Your task to perform on an android device: Go to ESPN.com Image 0: 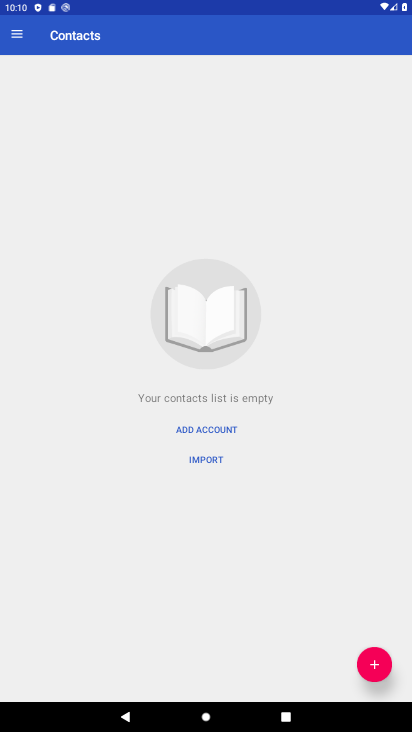
Step 0: press home button
Your task to perform on an android device: Go to ESPN.com Image 1: 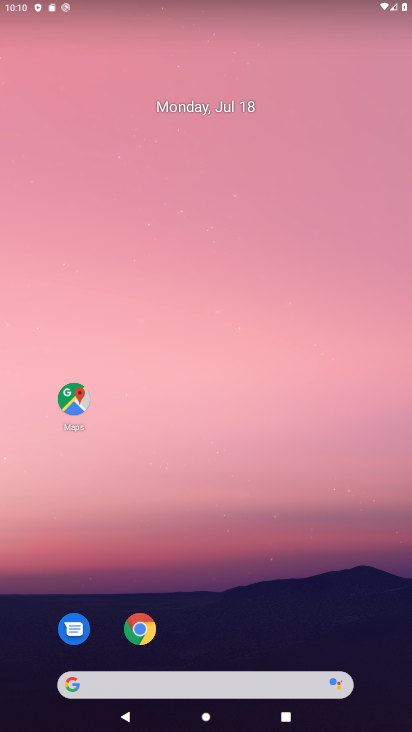
Step 1: click (146, 633)
Your task to perform on an android device: Go to ESPN.com Image 2: 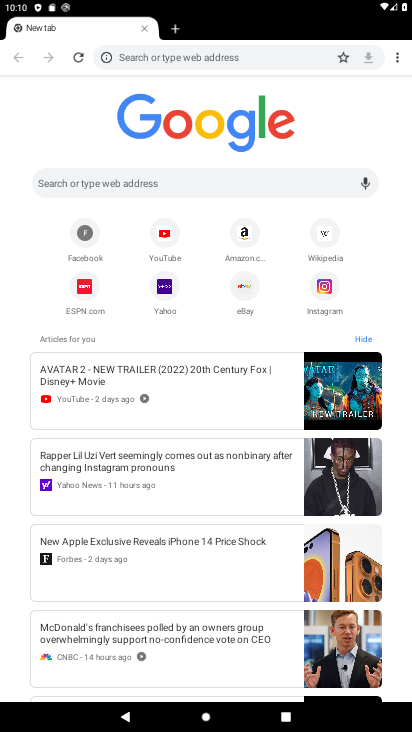
Step 2: click (87, 296)
Your task to perform on an android device: Go to ESPN.com Image 3: 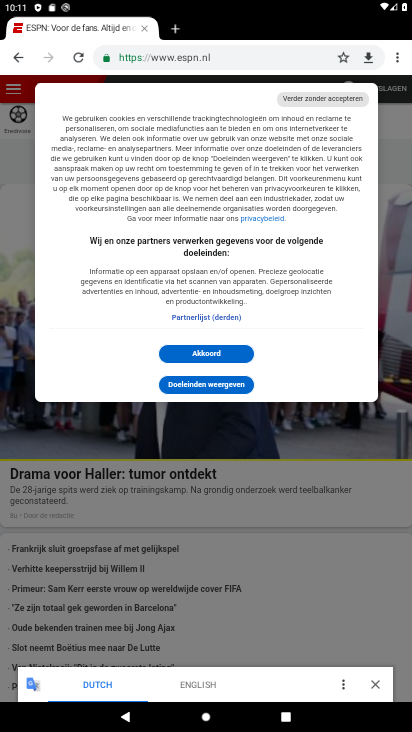
Step 3: task complete